Your task to perform on an android device: turn off javascript in the chrome app Image 0: 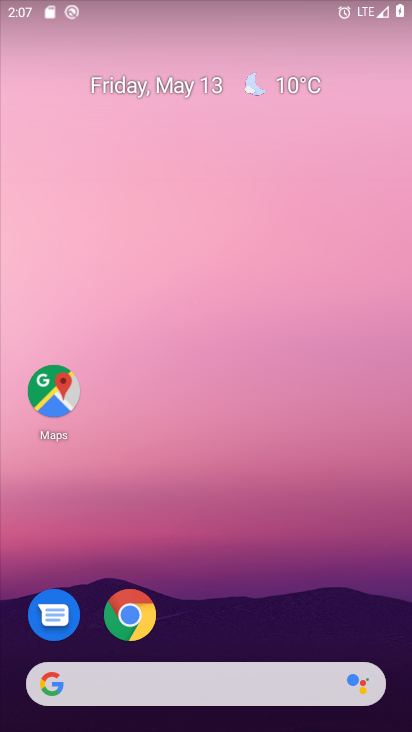
Step 0: click (148, 619)
Your task to perform on an android device: turn off javascript in the chrome app Image 1: 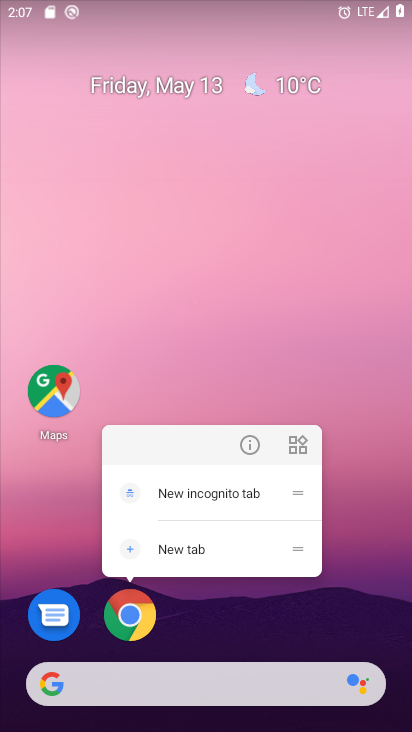
Step 1: click (331, 301)
Your task to perform on an android device: turn off javascript in the chrome app Image 2: 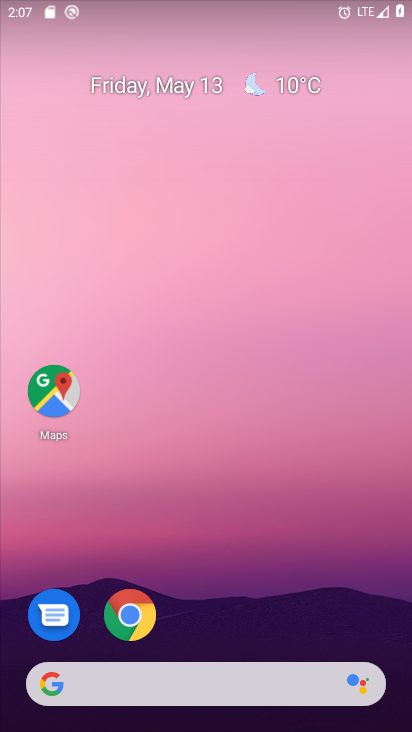
Step 2: click (137, 611)
Your task to perform on an android device: turn off javascript in the chrome app Image 3: 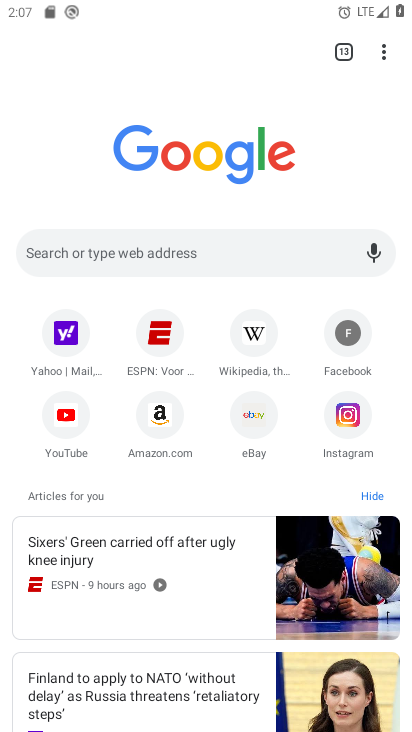
Step 3: click (381, 49)
Your task to perform on an android device: turn off javascript in the chrome app Image 4: 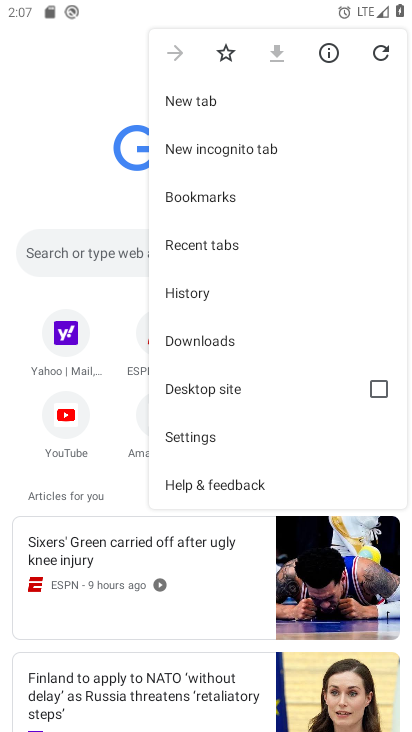
Step 4: click (218, 430)
Your task to perform on an android device: turn off javascript in the chrome app Image 5: 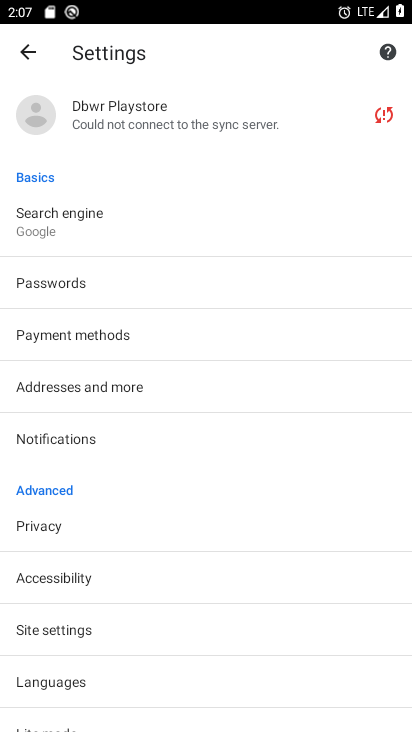
Step 5: click (173, 631)
Your task to perform on an android device: turn off javascript in the chrome app Image 6: 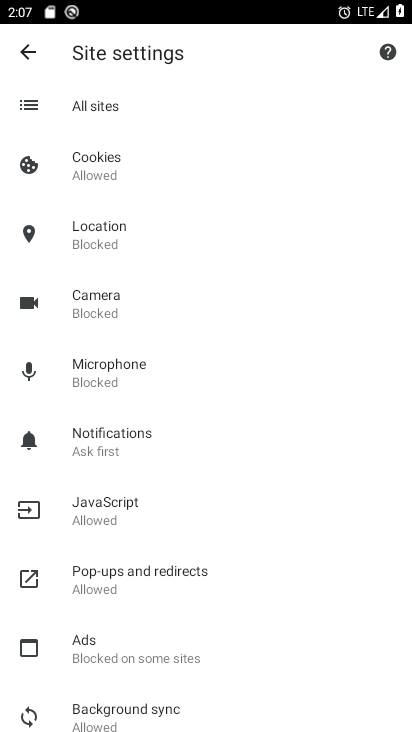
Step 6: click (188, 513)
Your task to perform on an android device: turn off javascript in the chrome app Image 7: 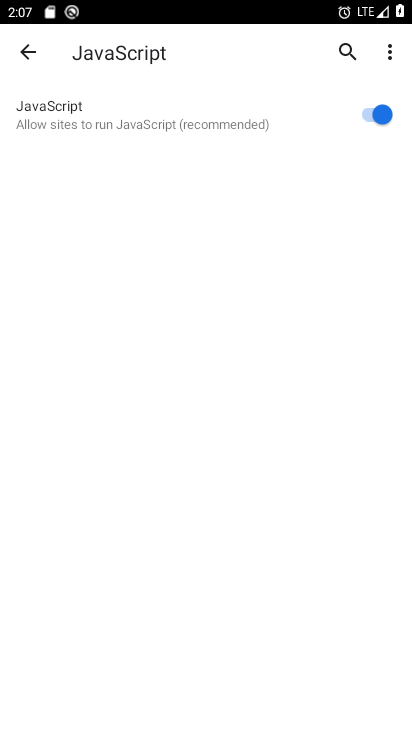
Step 7: click (370, 101)
Your task to perform on an android device: turn off javascript in the chrome app Image 8: 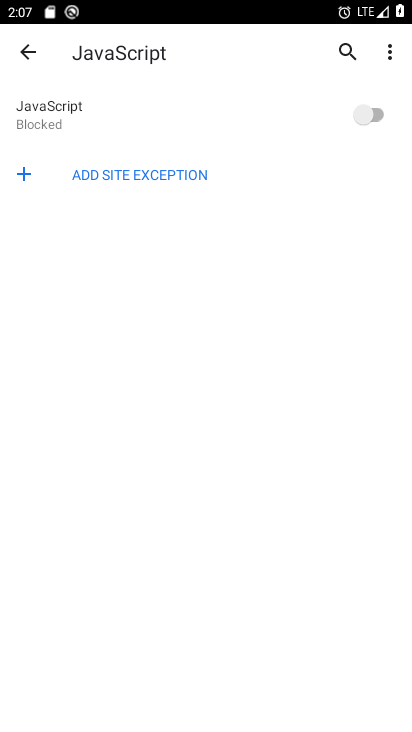
Step 8: task complete